Your task to perform on an android device: What is the average speed of a car? Image 0: 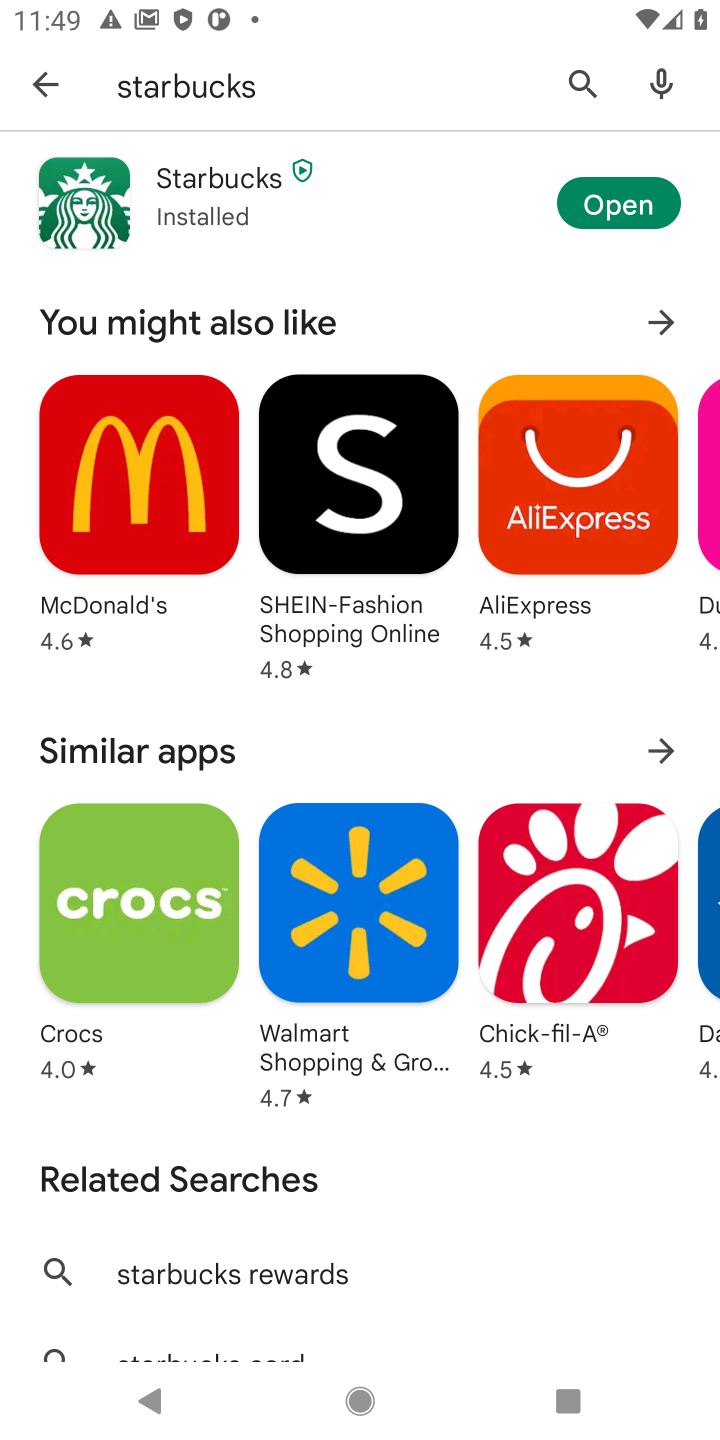
Step 0: press home button
Your task to perform on an android device: What is the average speed of a car? Image 1: 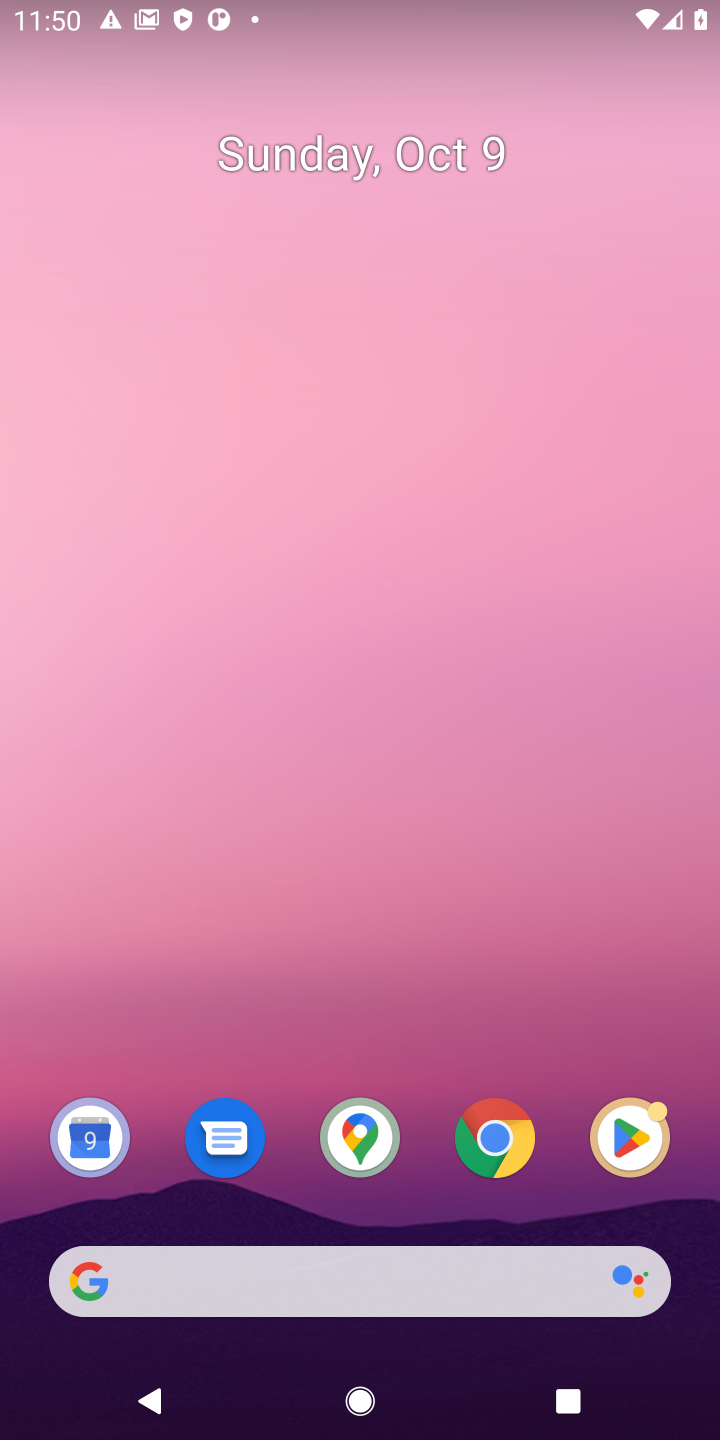
Step 1: click (503, 1154)
Your task to perform on an android device: What is the average speed of a car? Image 2: 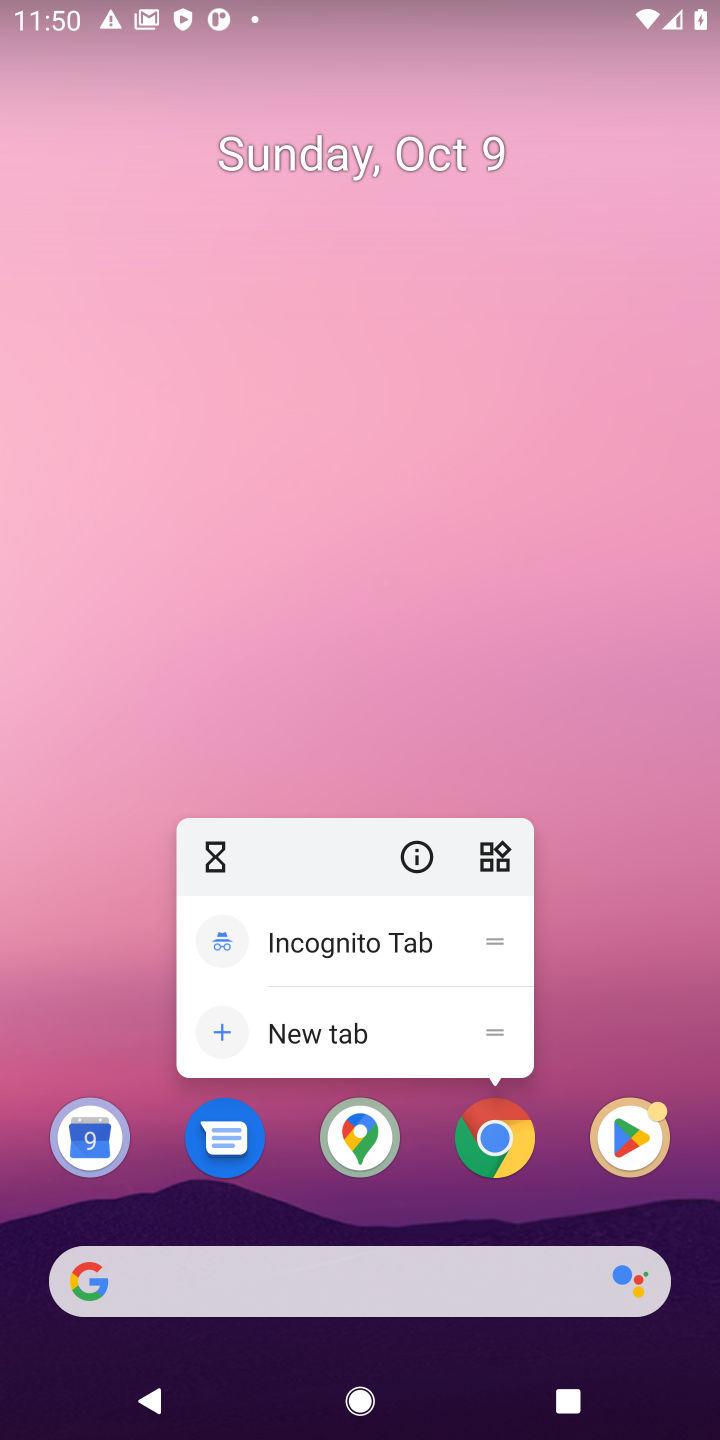
Step 2: click (503, 1154)
Your task to perform on an android device: What is the average speed of a car? Image 3: 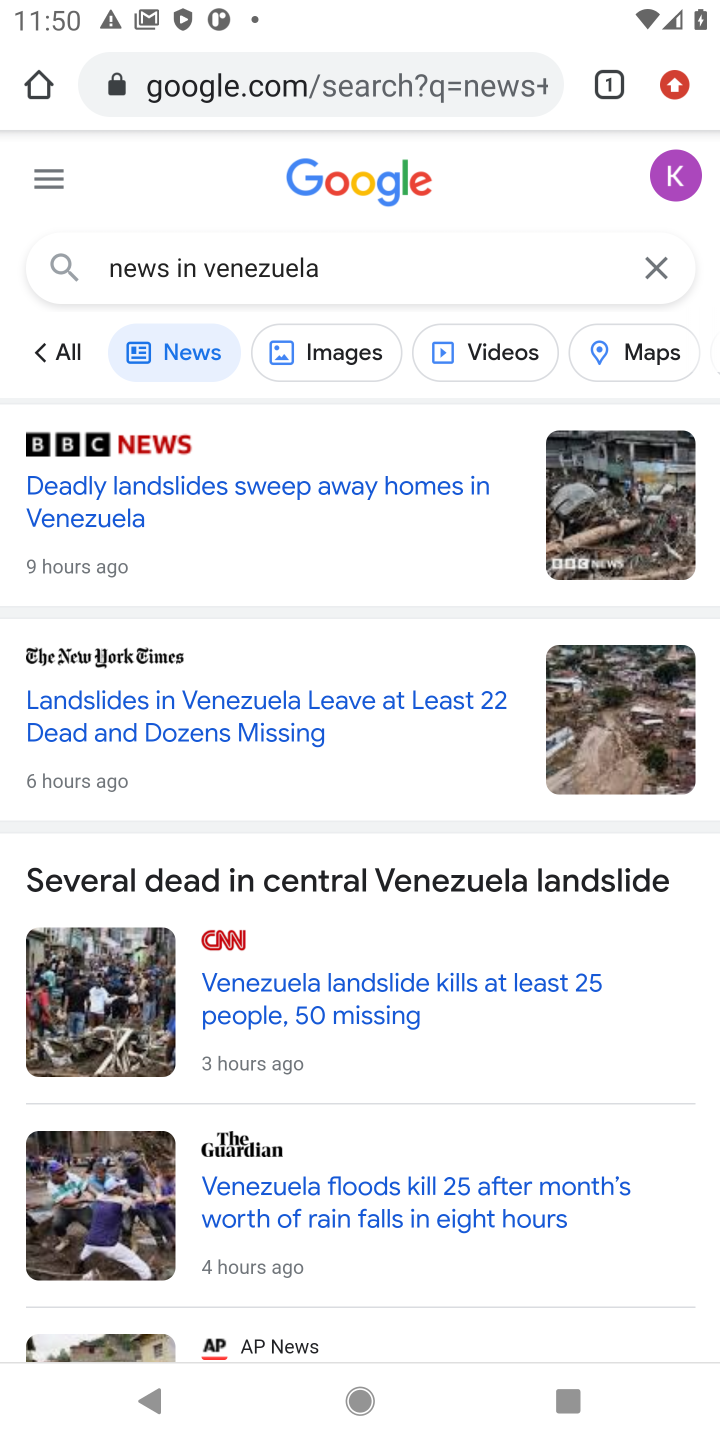
Step 3: click (661, 268)
Your task to perform on an android device: What is the average speed of a car? Image 4: 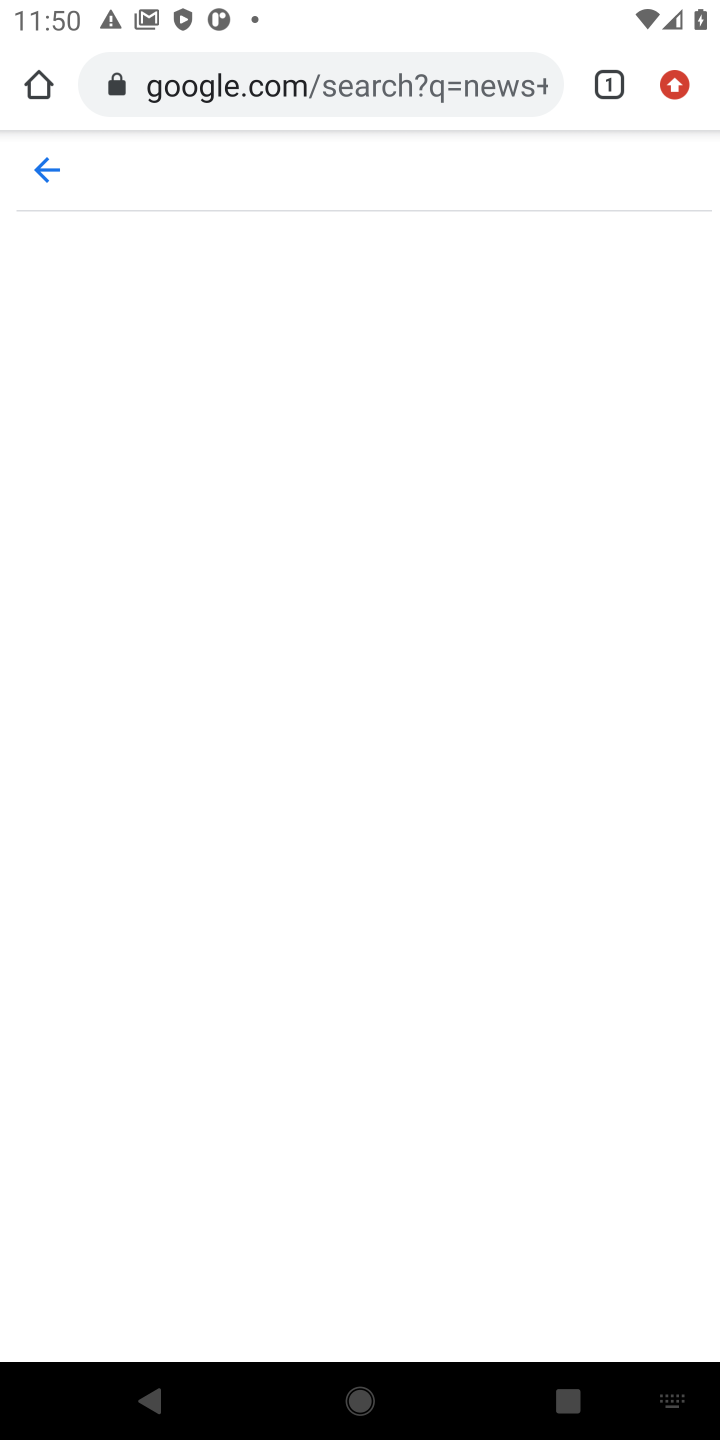
Step 4: type "What is the average speed of a car?"
Your task to perform on an android device: What is the average speed of a car? Image 5: 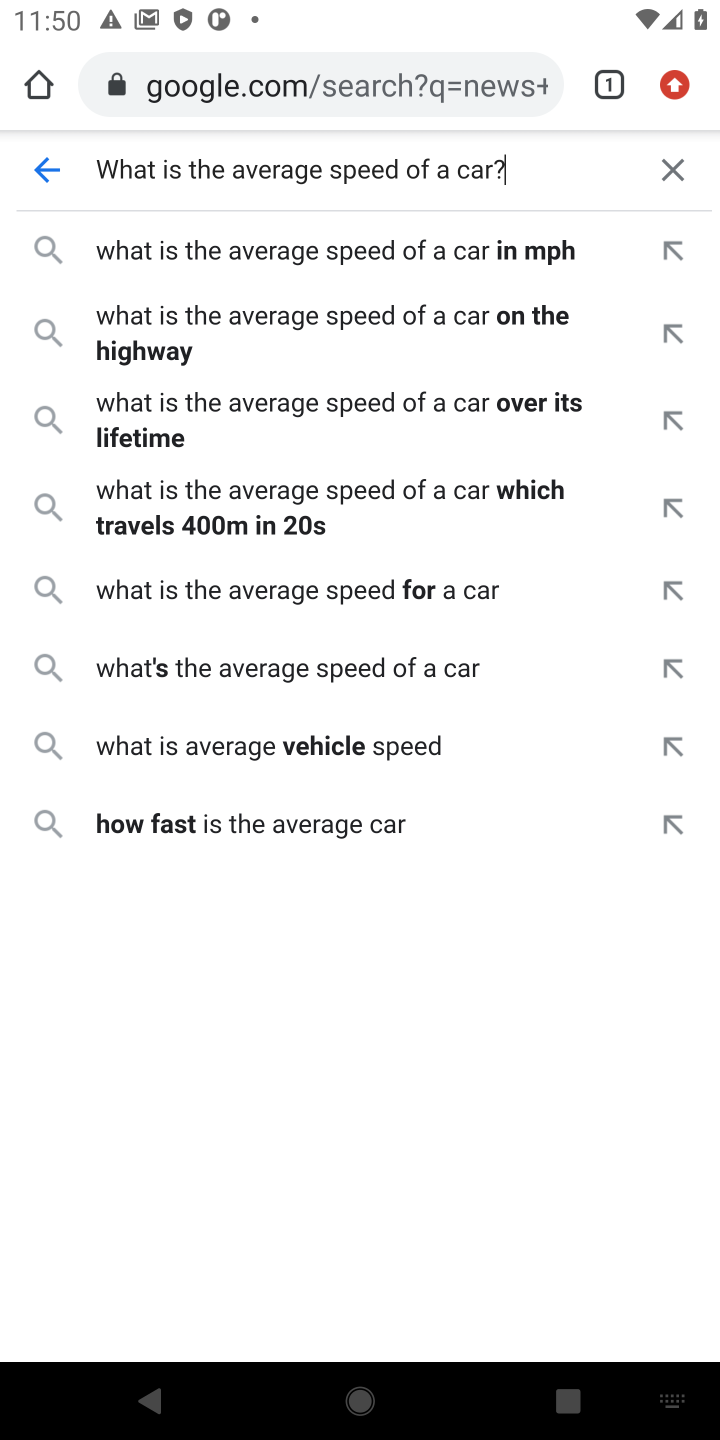
Step 5: press enter
Your task to perform on an android device: What is the average speed of a car? Image 6: 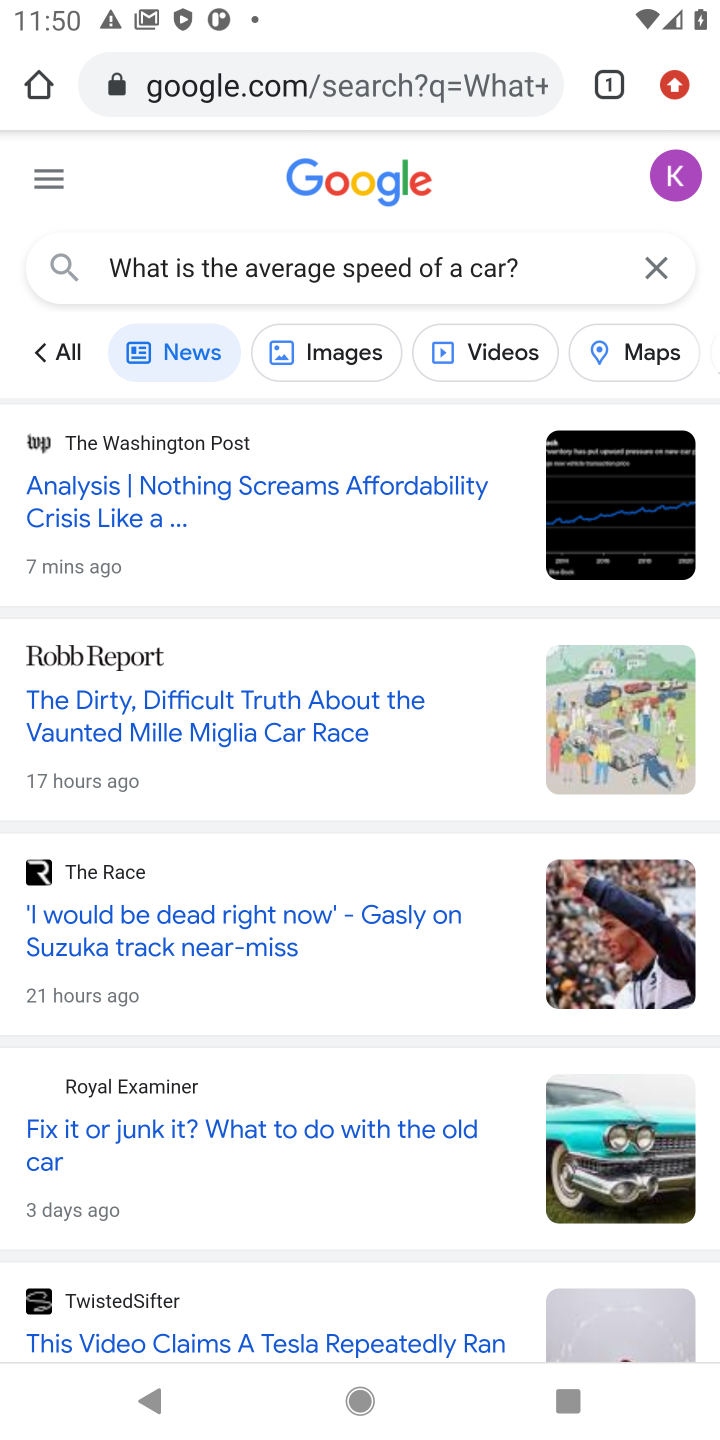
Step 6: click (71, 351)
Your task to perform on an android device: What is the average speed of a car? Image 7: 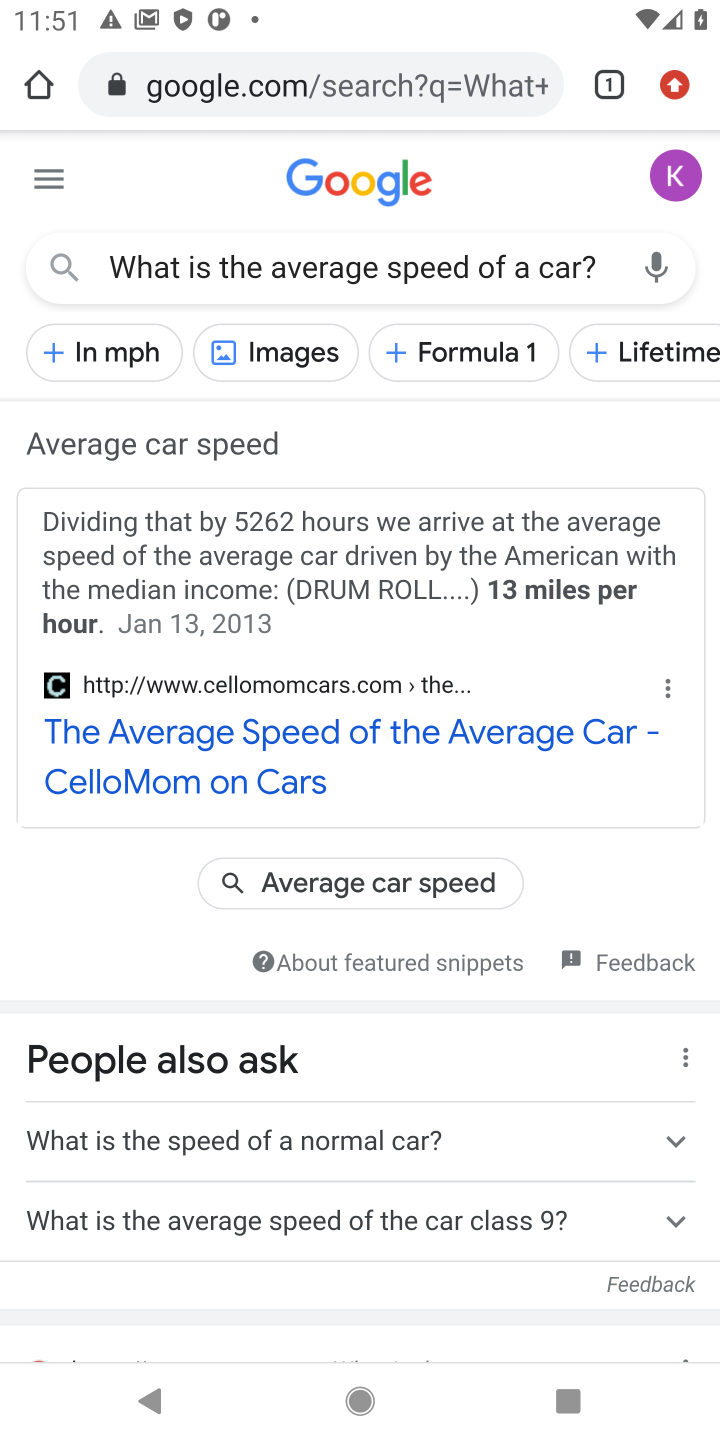
Step 7: task complete